Your task to perform on an android device: Is it going to rain tomorrow? Image 0: 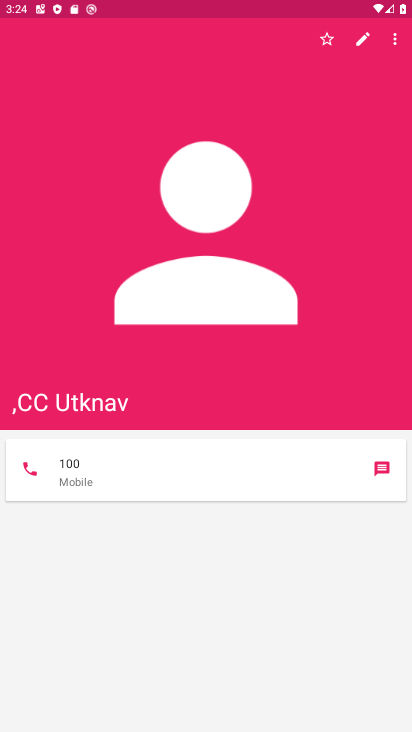
Step 0: task complete